Your task to perform on an android device: Toggle the flashlight Image 0: 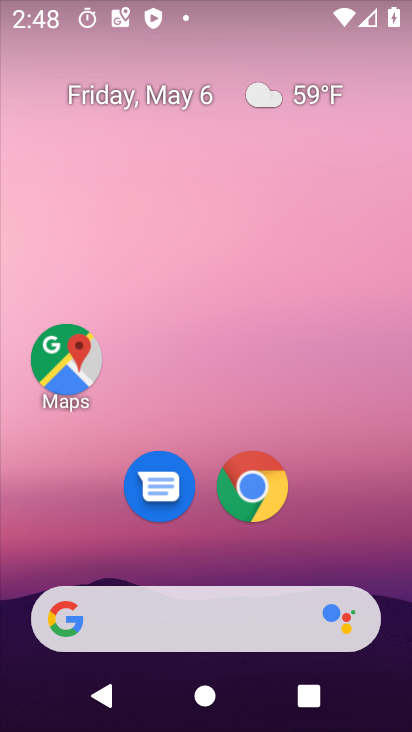
Step 0: click (253, 480)
Your task to perform on an android device: Toggle the flashlight Image 1: 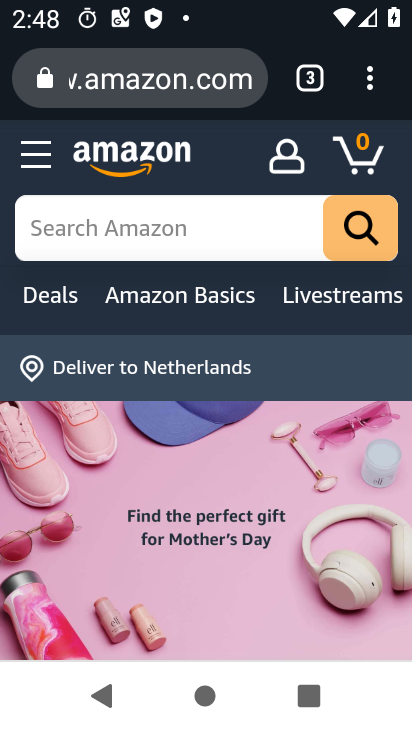
Step 1: press home button
Your task to perform on an android device: Toggle the flashlight Image 2: 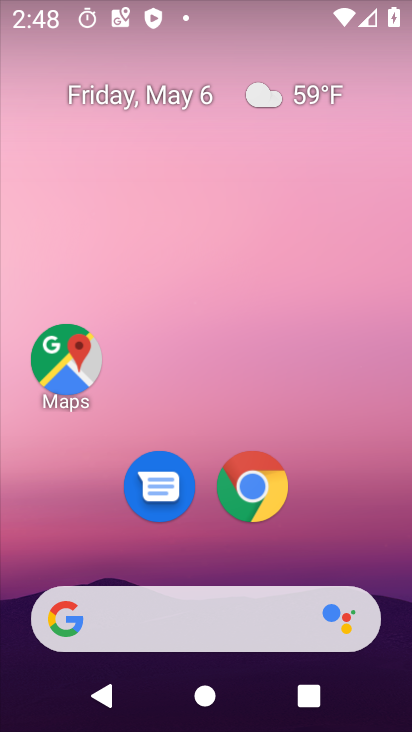
Step 2: drag from (330, 493) to (265, 80)
Your task to perform on an android device: Toggle the flashlight Image 3: 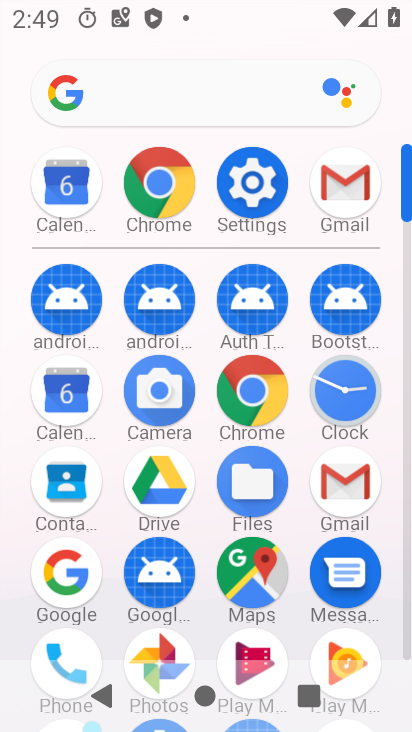
Step 3: click (254, 191)
Your task to perform on an android device: Toggle the flashlight Image 4: 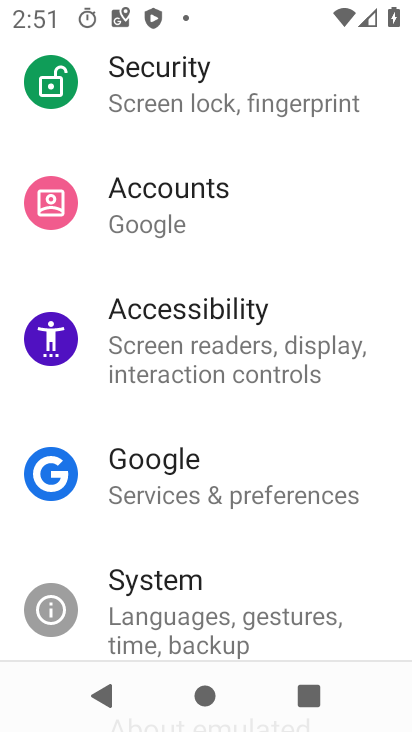
Step 4: task complete